Your task to perform on an android device: change the clock display to analog Image 0: 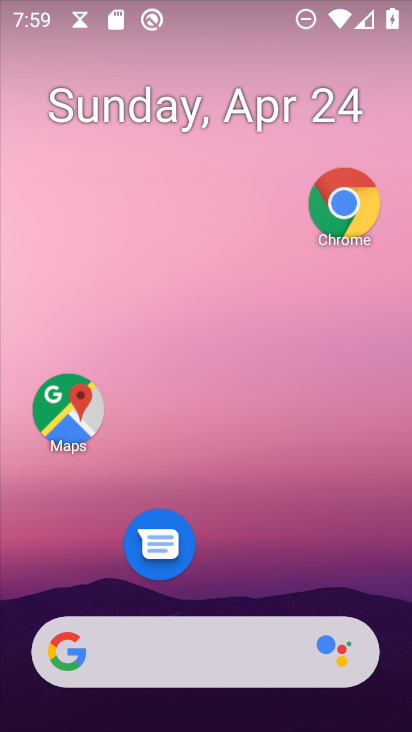
Step 0: press home button
Your task to perform on an android device: change the clock display to analog Image 1: 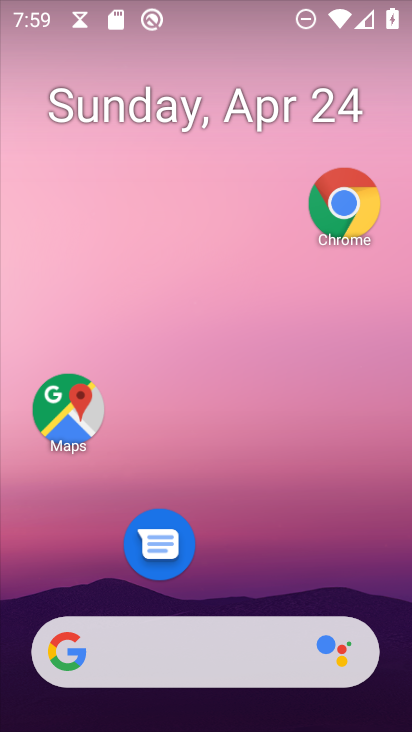
Step 1: drag from (179, 655) to (321, 111)
Your task to perform on an android device: change the clock display to analog Image 2: 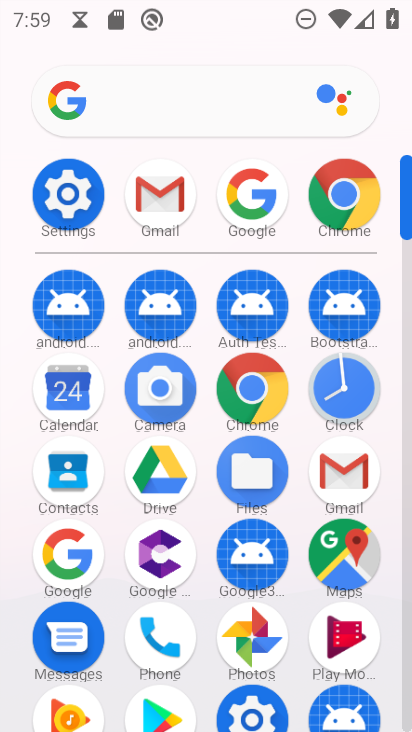
Step 2: click (351, 410)
Your task to perform on an android device: change the clock display to analog Image 3: 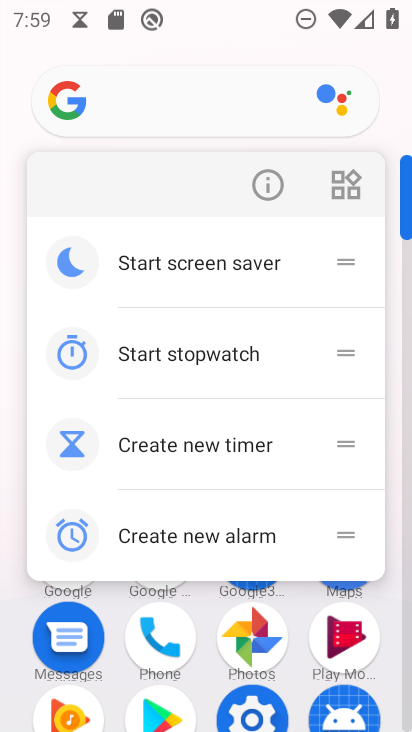
Step 3: drag from (194, 650) to (320, 270)
Your task to perform on an android device: change the clock display to analog Image 4: 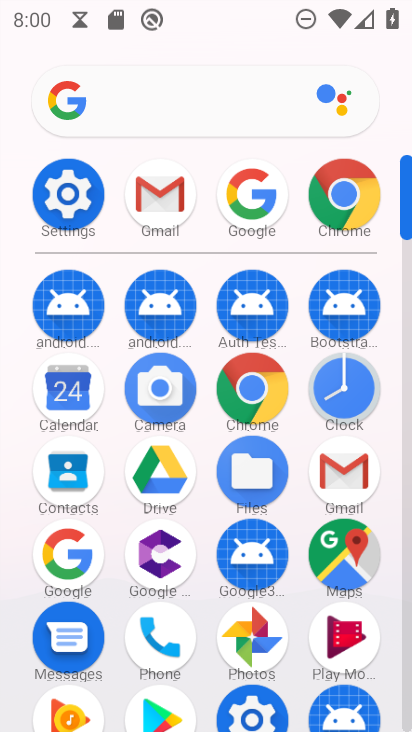
Step 4: click (344, 398)
Your task to perform on an android device: change the clock display to analog Image 5: 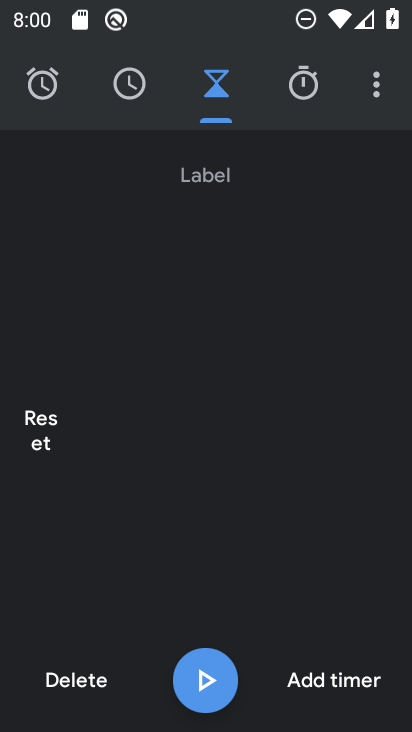
Step 5: click (376, 91)
Your task to perform on an android device: change the clock display to analog Image 6: 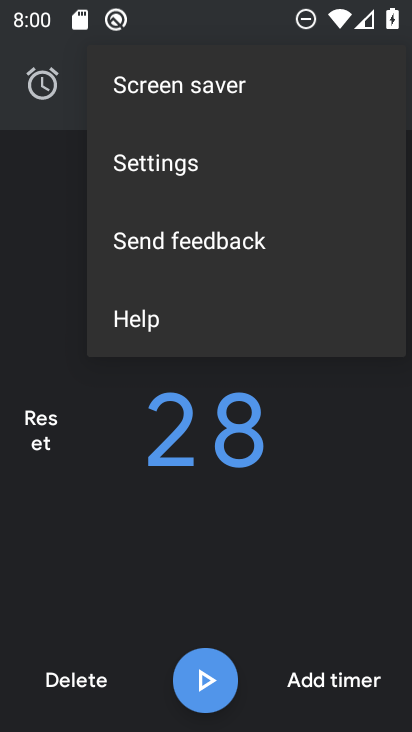
Step 6: click (146, 155)
Your task to perform on an android device: change the clock display to analog Image 7: 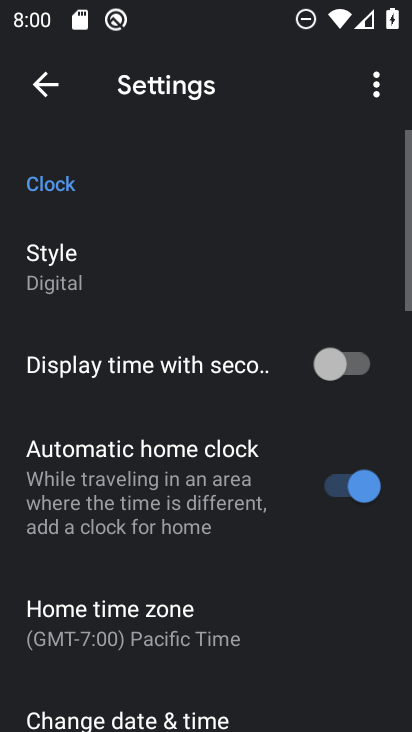
Step 7: click (76, 283)
Your task to perform on an android device: change the clock display to analog Image 8: 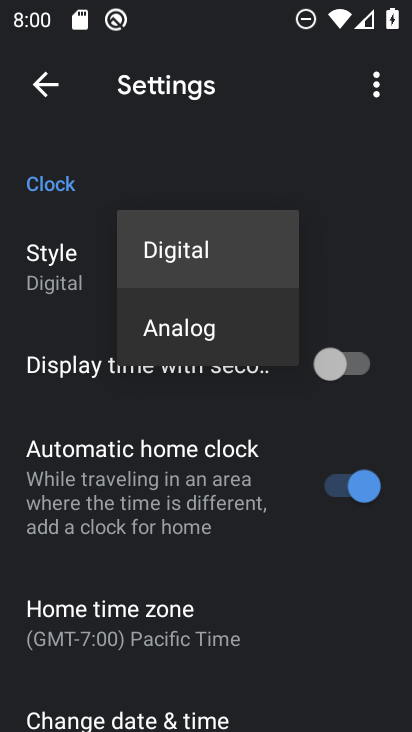
Step 8: click (168, 332)
Your task to perform on an android device: change the clock display to analog Image 9: 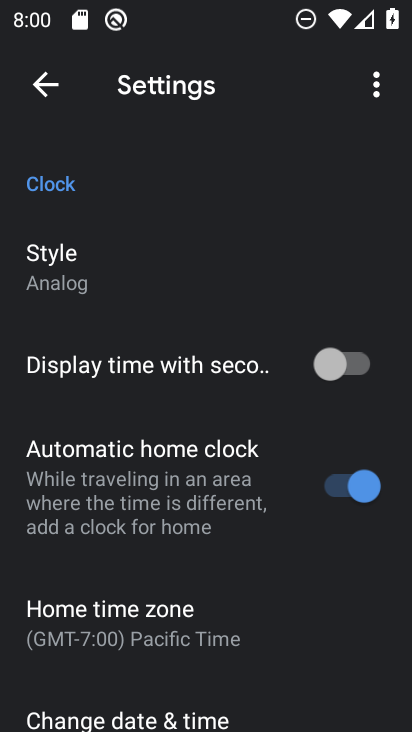
Step 9: task complete